Your task to perform on an android device: add a label to a message in the gmail app Image 0: 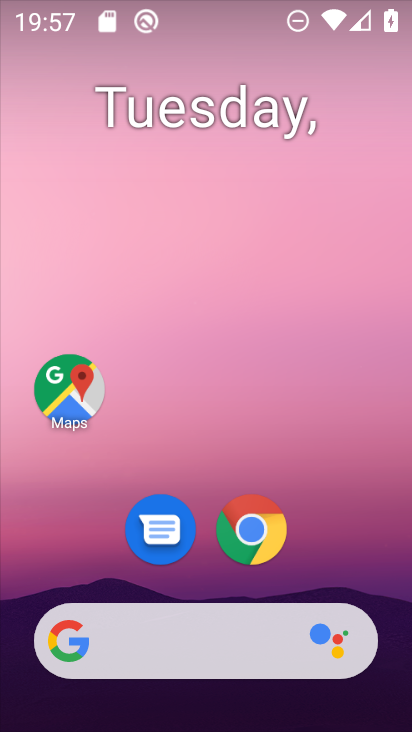
Step 0: drag from (199, 570) to (366, 116)
Your task to perform on an android device: add a label to a message in the gmail app Image 1: 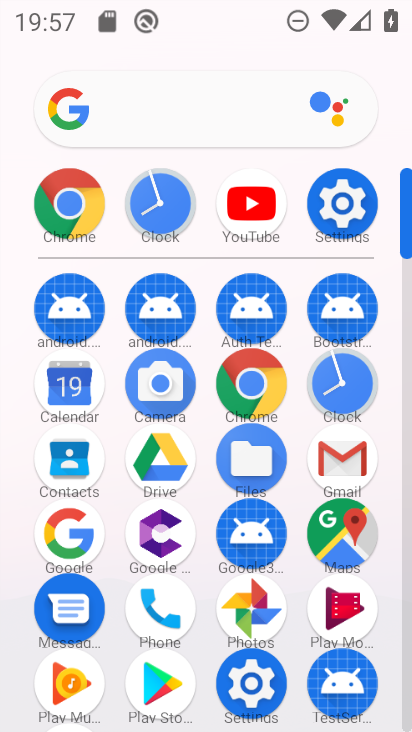
Step 1: click (335, 465)
Your task to perform on an android device: add a label to a message in the gmail app Image 2: 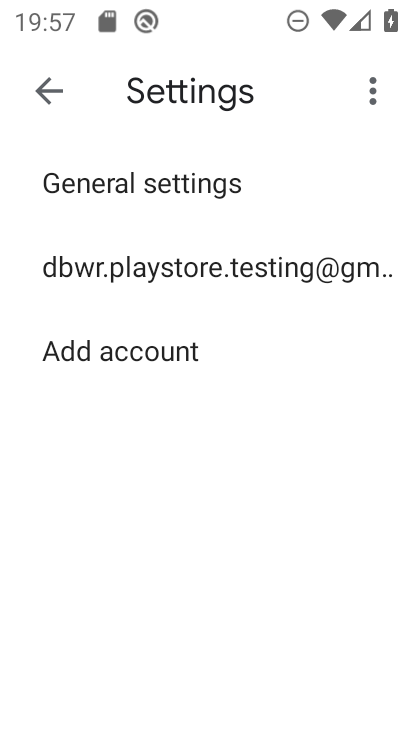
Step 2: click (44, 90)
Your task to perform on an android device: add a label to a message in the gmail app Image 3: 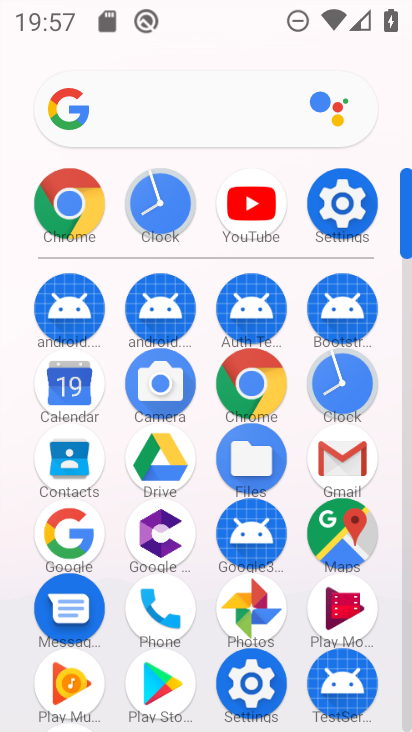
Step 3: click (348, 468)
Your task to perform on an android device: add a label to a message in the gmail app Image 4: 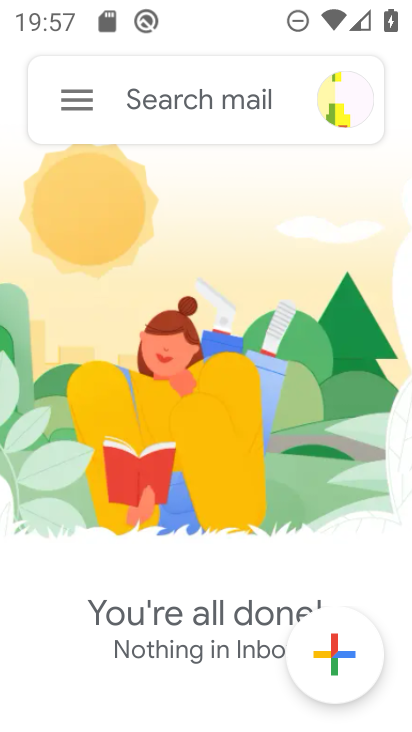
Step 4: click (84, 105)
Your task to perform on an android device: add a label to a message in the gmail app Image 5: 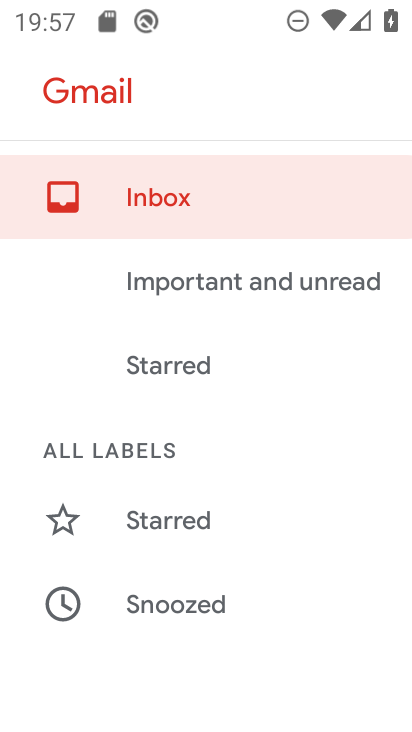
Step 5: click (205, 611)
Your task to perform on an android device: add a label to a message in the gmail app Image 6: 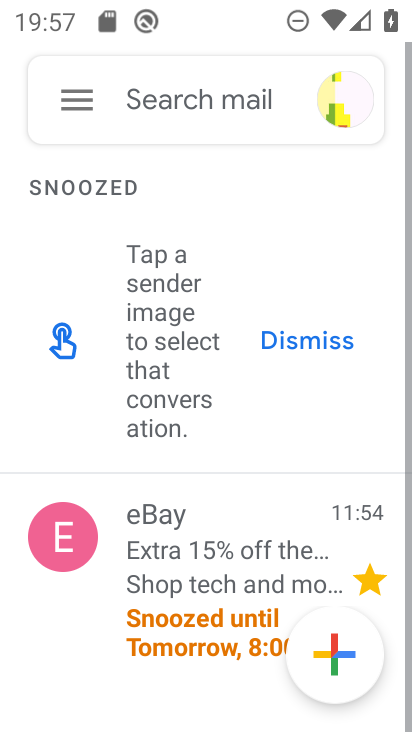
Step 6: drag from (198, 491) to (314, 139)
Your task to perform on an android device: add a label to a message in the gmail app Image 7: 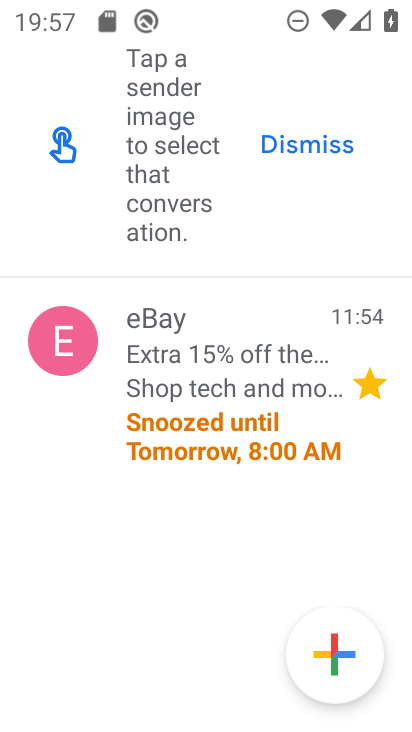
Step 7: click (198, 371)
Your task to perform on an android device: add a label to a message in the gmail app Image 8: 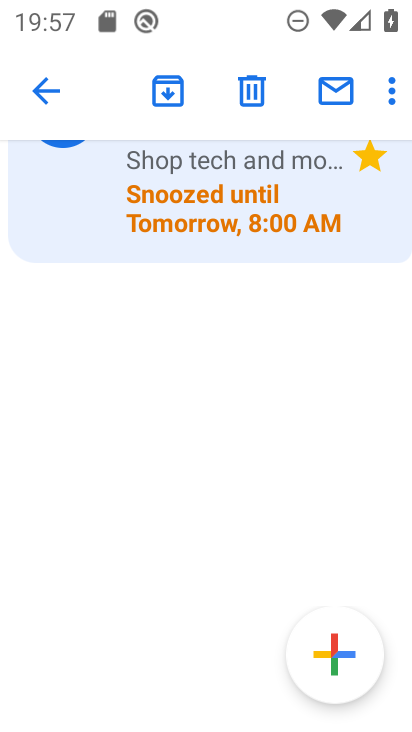
Step 8: drag from (215, 293) to (232, 615)
Your task to perform on an android device: add a label to a message in the gmail app Image 9: 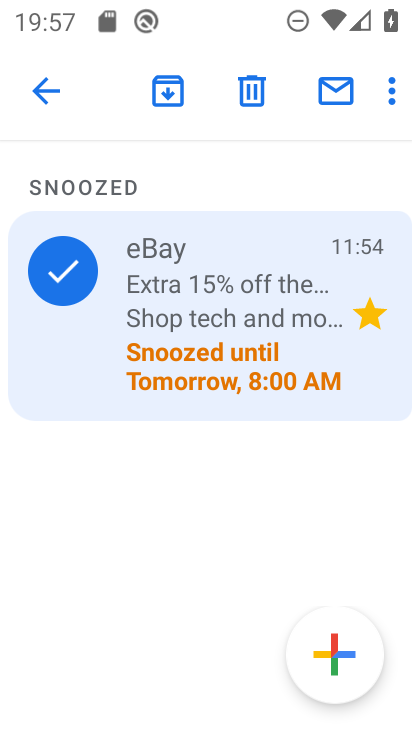
Step 9: click (76, 272)
Your task to perform on an android device: add a label to a message in the gmail app Image 10: 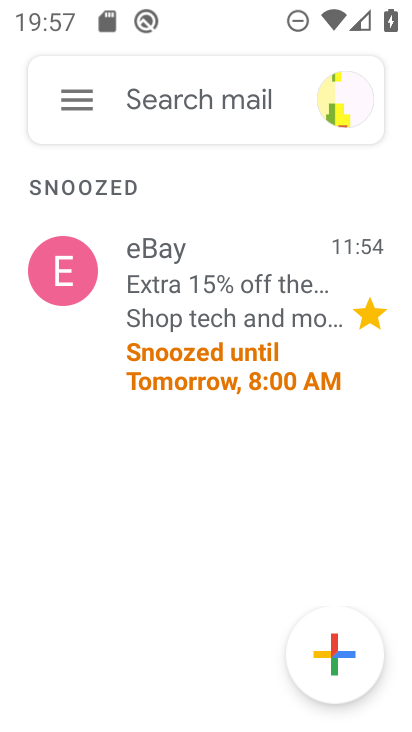
Step 10: click (217, 297)
Your task to perform on an android device: add a label to a message in the gmail app Image 11: 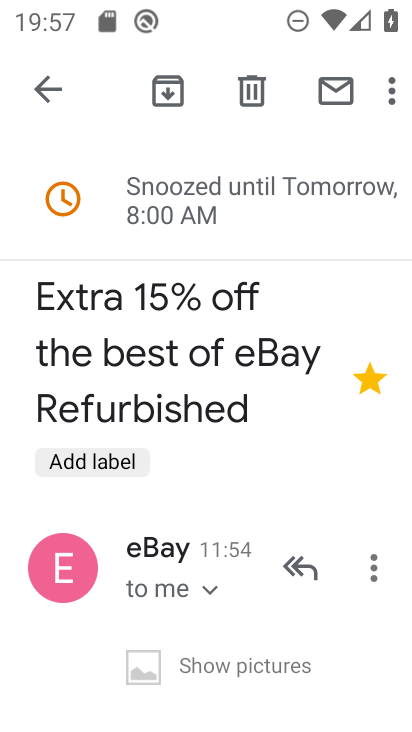
Step 11: click (118, 457)
Your task to perform on an android device: add a label to a message in the gmail app Image 12: 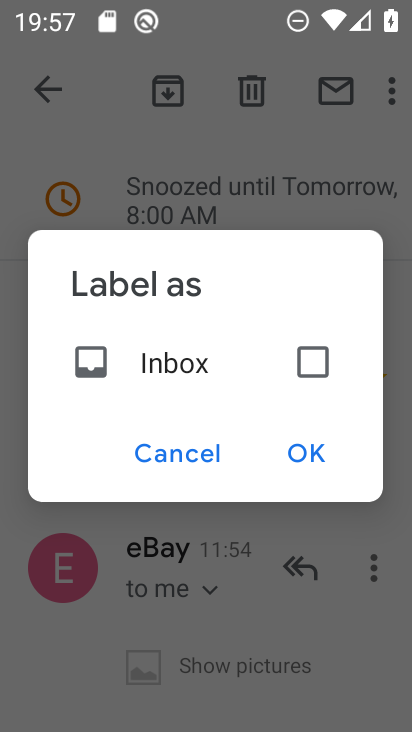
Step 12: click (310, 365)
Your task to perform on an android device: add a label to a message in the gmail app Image 13: 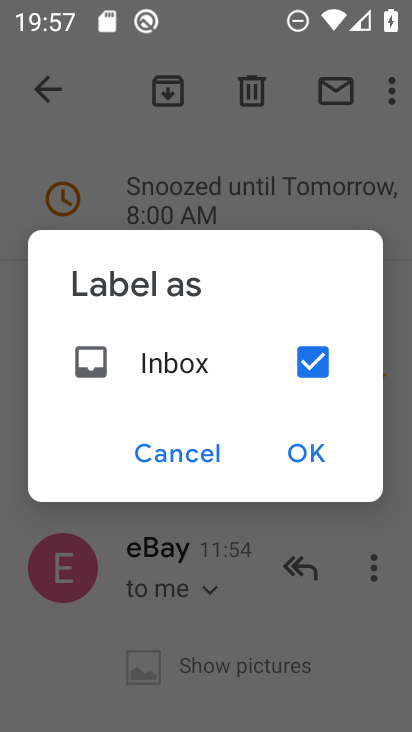
Step 13: click (308, 450)
Your task to perform on an android device: add a label to a message in the gmail app Image 14: 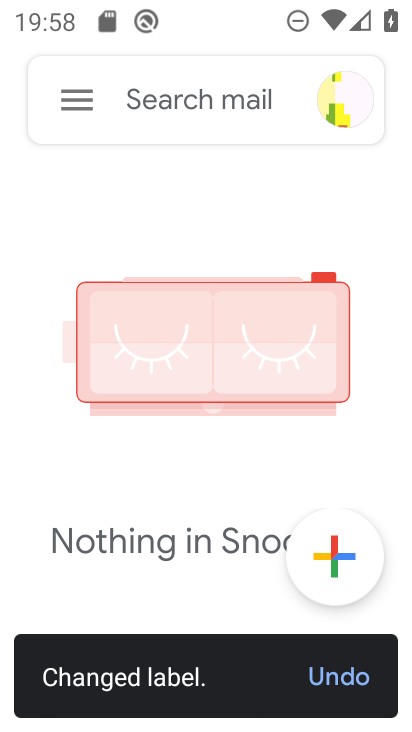
Step 14: task complete